Your task to perform on an android device: toggle javascript in the chrome app Image 0: 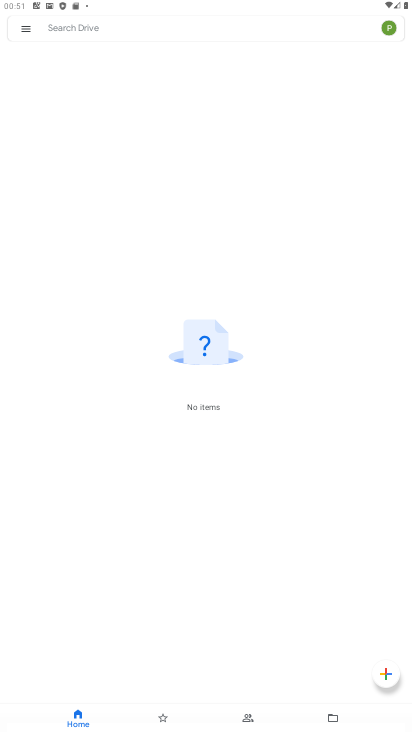
Step 0: press home button
Your task to perform on an android device: toggle javascript in the chrome app Image 1: 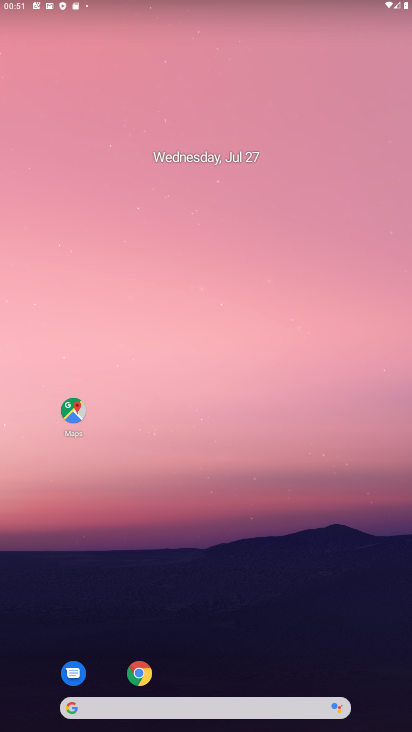
Step 1: drag from (301, 650) to (295, 280)
Your task to perform on an android device: toggle javascript in the chrome app Image 2: 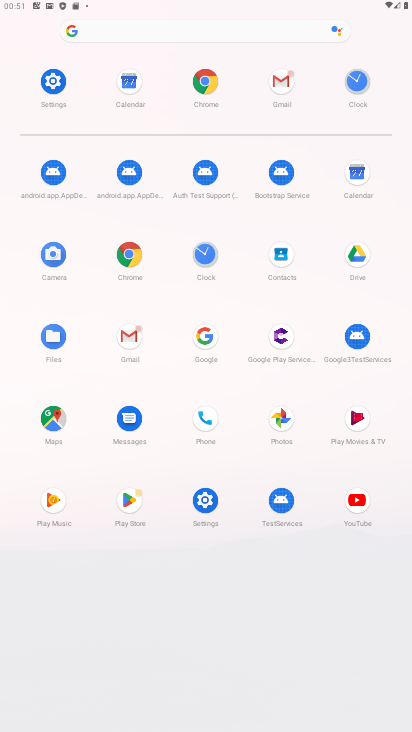
Step 2: click (129, 256)
Your task to perform on an android device: toggle javascript in the chrome app Image 3: 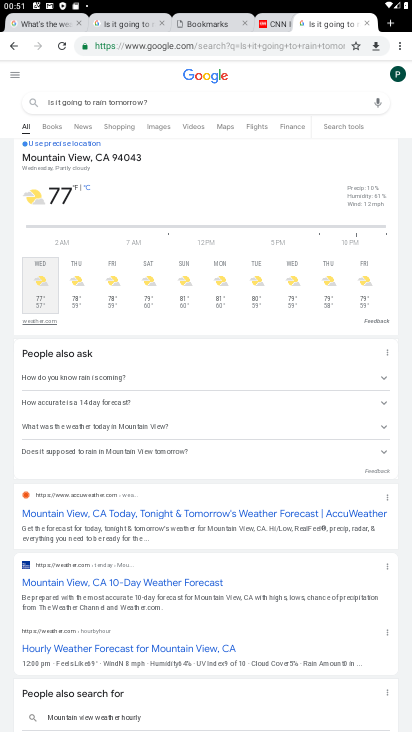
Step 3: click (404, 44)
Your task to perform on an android device: toggle javascript in the chrome app Image 4: 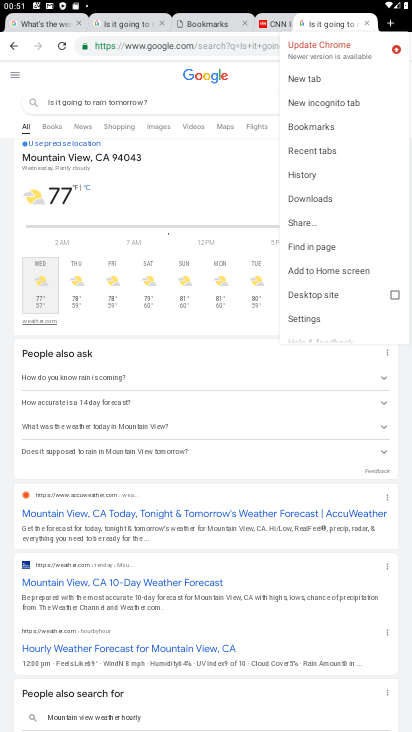
Step 4: click (321, 314)
Your task to perform on an android device: toggle javascript in the chrome app Image 5: 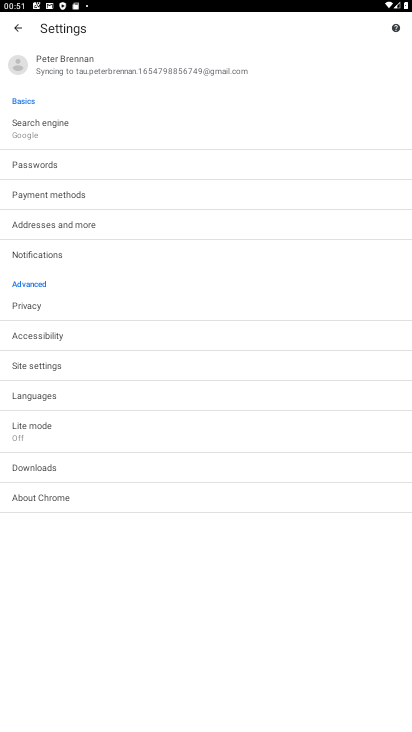
Step 5: click (74, 361)
Your task to perform on an android device: toggle javascript in the chrome app Image 6: 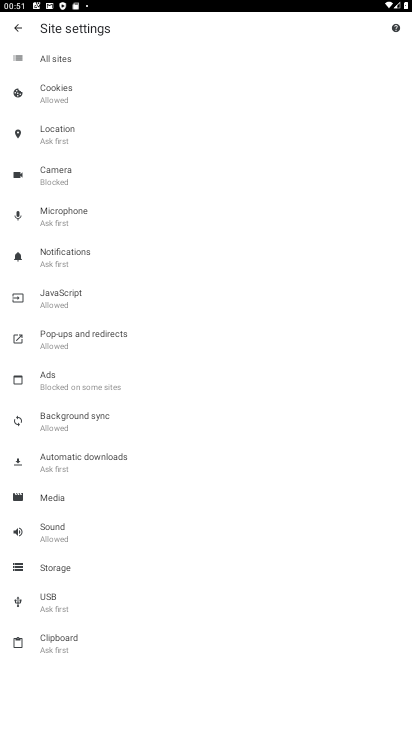
Step 6: click (67, 285)
Your task to perform on an android device: toggle javascript in the chrome app Image 7: 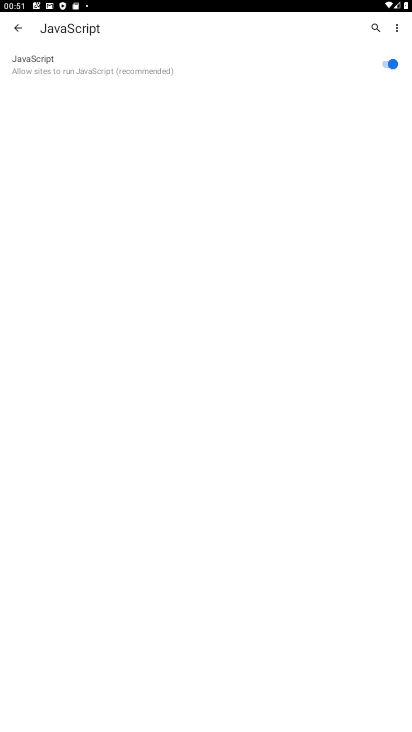
Step 7: click (388, 54)
Your task to perform on an android device: toggle javascript in the chrome app Image 8: 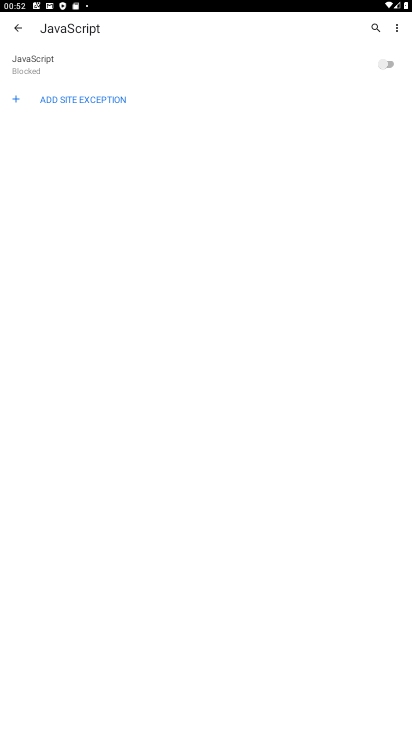
Step 8: task complete